Your task to perform on an android device: star an email in the gmail app Image 0: 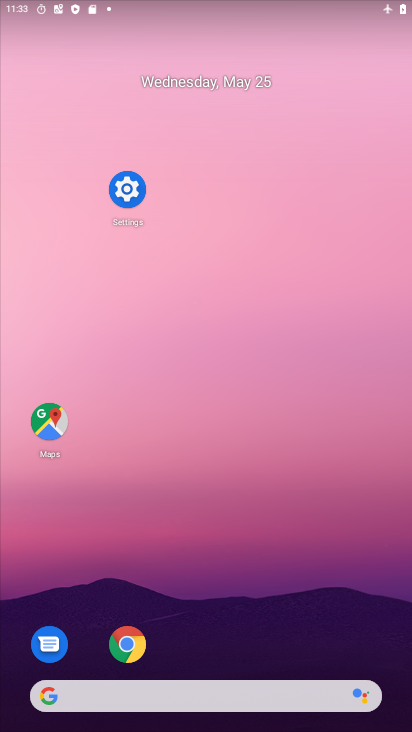
Step 0: drag from (205, 625) to (212, 96)
Your task to perform on an android device: star an email in the gmail app Image 1: 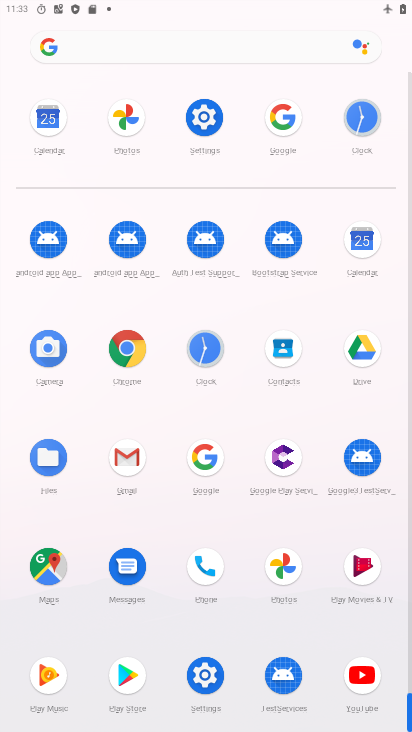
Step 1: click (121, 460)
Your task to perform on an android device: star an email in the gmail app Image 2: 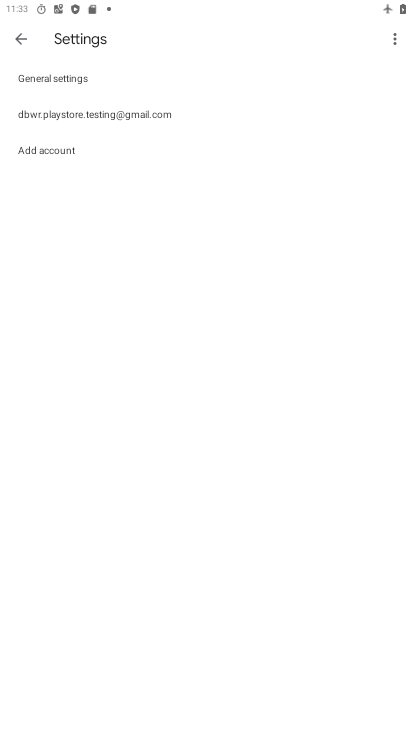
Step 2: press back button
Your task to perform on an android device: star an email in the gmail app Image 3: 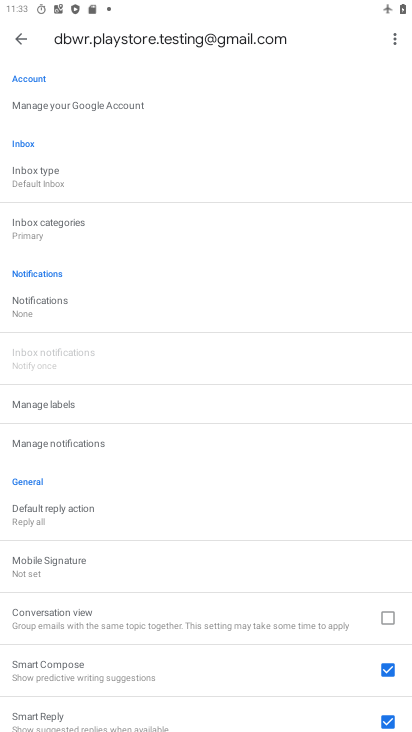
Step 3: press back button
Your task to perform on an android device: star an email in the gmail app Image 4: 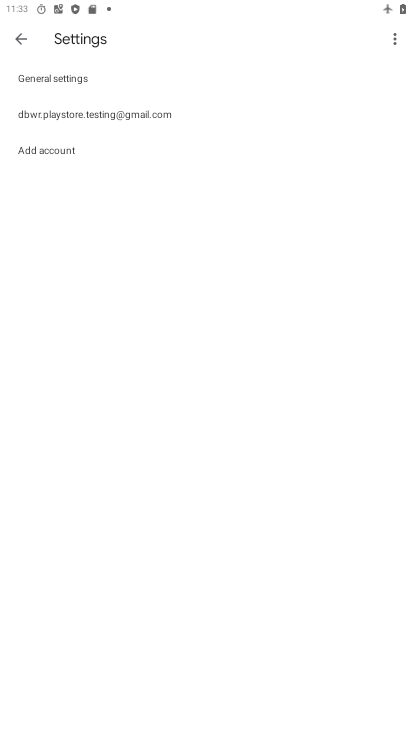
Step 4: press back button
Your task to perform on an android device: star an email in the gmail app Image 5: 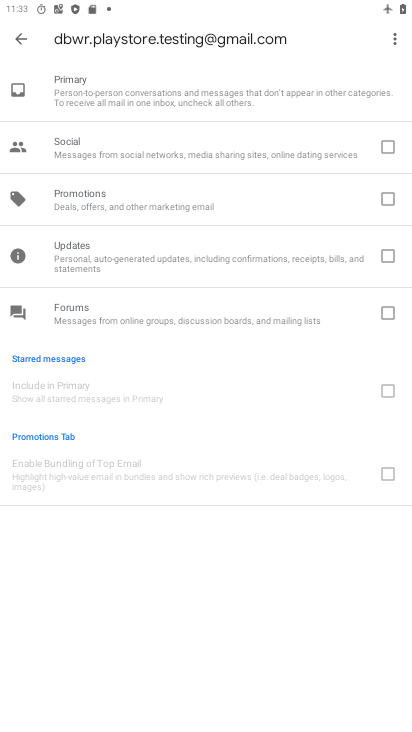
Step 5: press back button
Your task to perform on an android device: star an email in the gmail app Image 6: 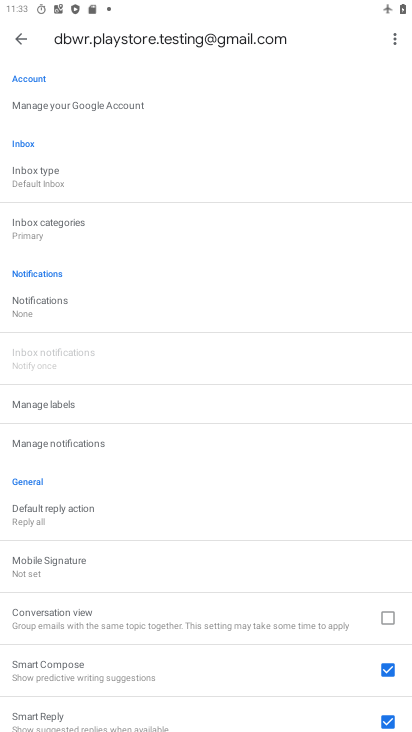
Step 6: press back button
Your task to perform on an android device: star an email in the gmail app Image 7: 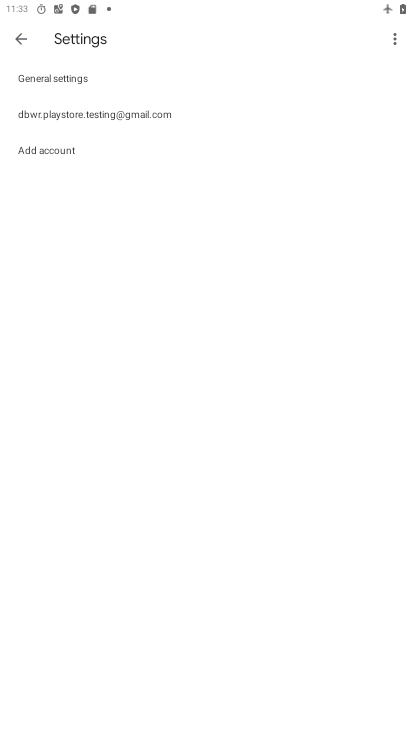
Step 7: press back button
Your task to perform on an android device: star an email in the gmail app Image 8: 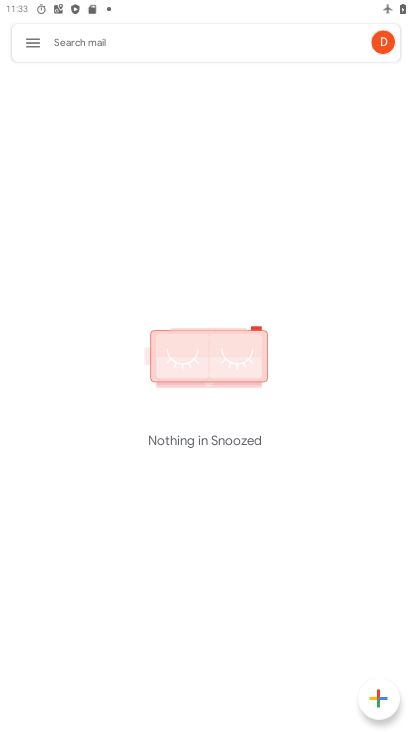
Step 8: click (25, 47)
Your task to perform on an android device: star an email in the gmail app Image 9: 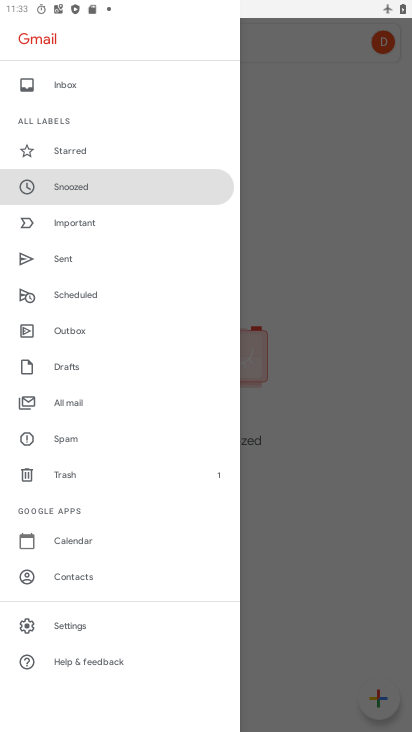
Step 9: click (91, 390)
Your task to perform on an android device: star an email in the gmail app Image 10: 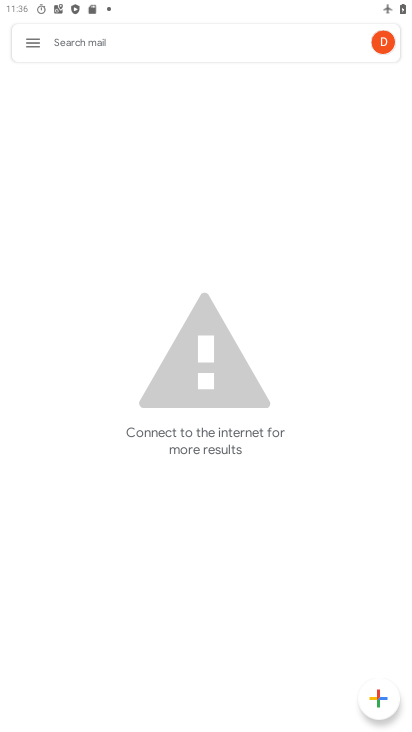
Step 10: task complete